Your task to perform on an android device: open a bookmark in the chrome app Image 0: 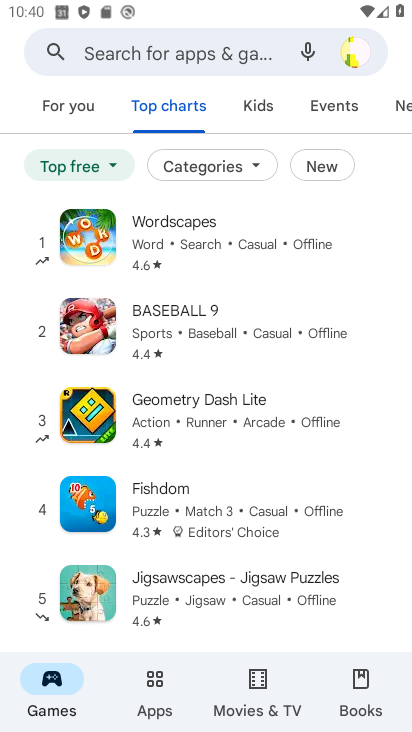
Step 0: press home button
Your task to perform on an android device: open a bookmark in the chrome app Image 1: 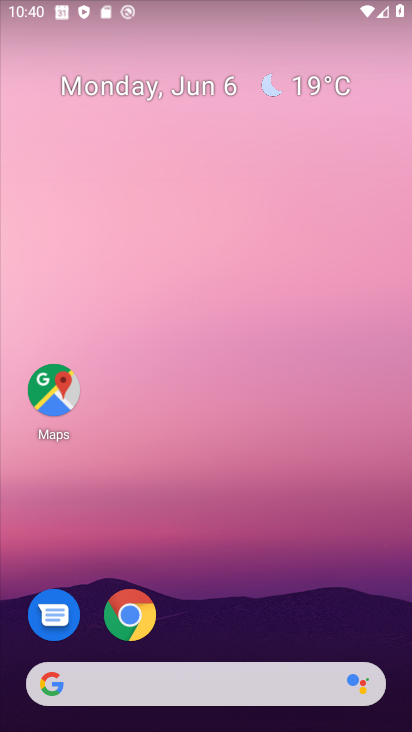
Step 1: drag from (305, 620) to (289, 159)
Your task to perform on an android device: open a bookmark in the chrome app Image 2: 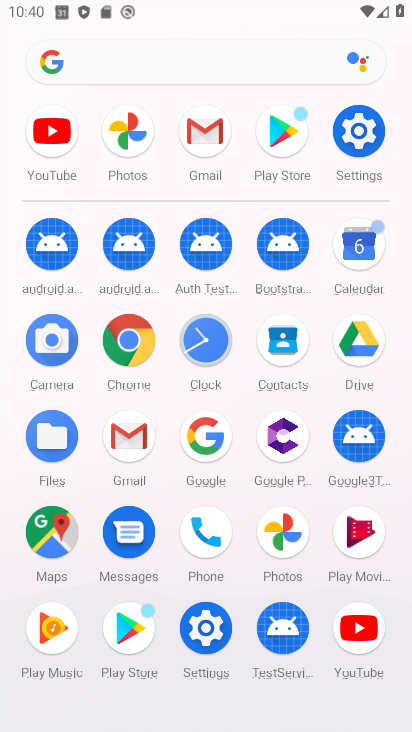
Step 2: click (133, 347)
Your task to perform on an android device: open a bookmark in the chrome app Image 3: 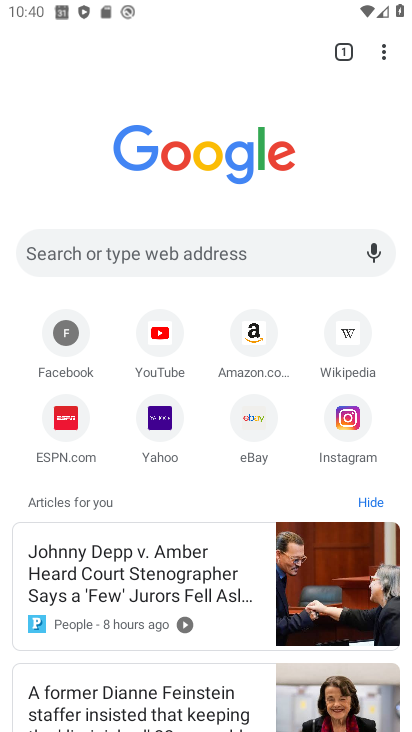
Step 3: click (386, 62)
Your task to perform on an android device: open a bookmark in the chrome app Image 4: 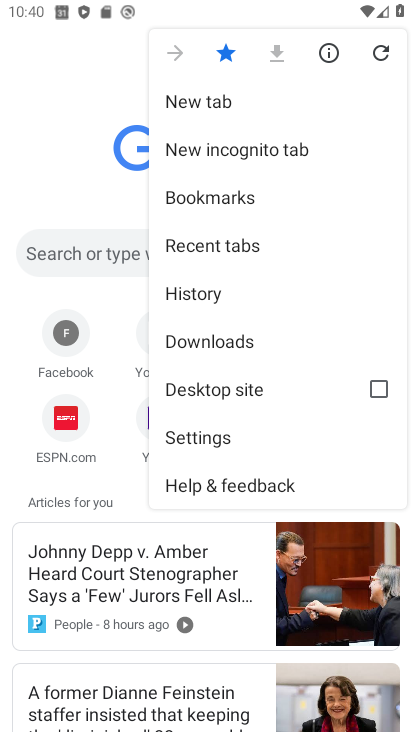
Step 4: click (238, 189)
Your task to perform on an android device: open a bookmark in the chrome app Image 5: 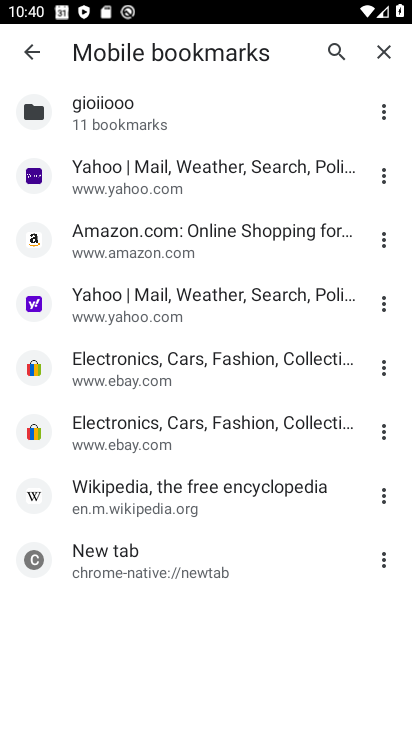
Step 5: click (161, 156)
Your task to perform on an android device: open a bookmark in the chrome app Image 6: 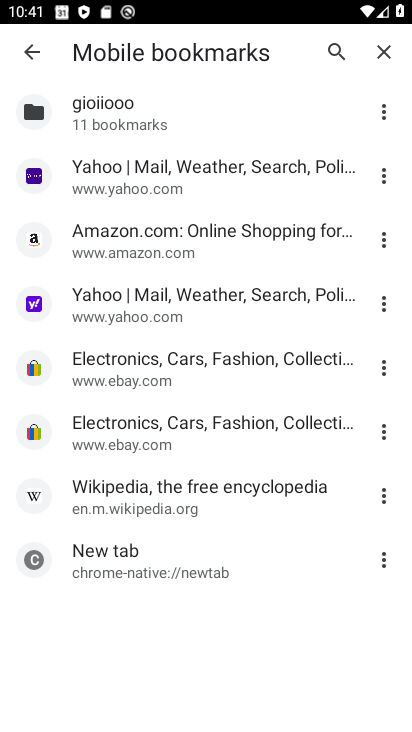
Step 6: task complete